Your task to perform on an android device: star an email in the gmail app Image 0: 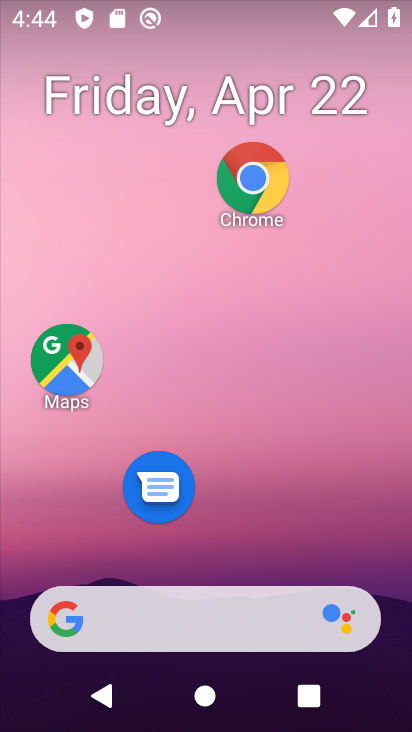
Step 0: drag from (206, 724) to (209, 126)
Your task to perform on an android device: star an email in the gmail app Image 1: 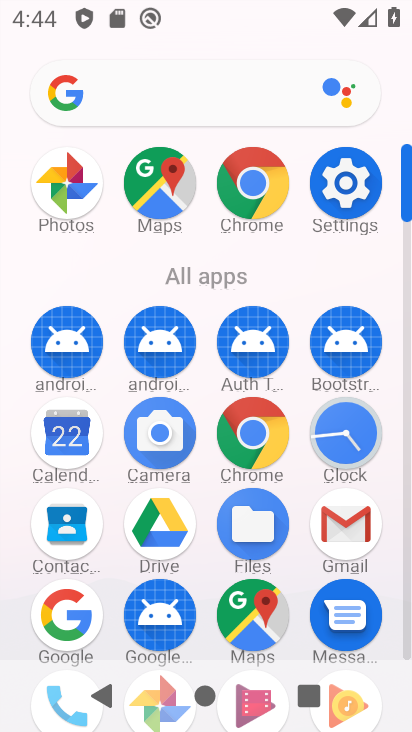
Step 1: click (349, 519)
Your task to perform on an android device: star an email in the gmail app Image 2: 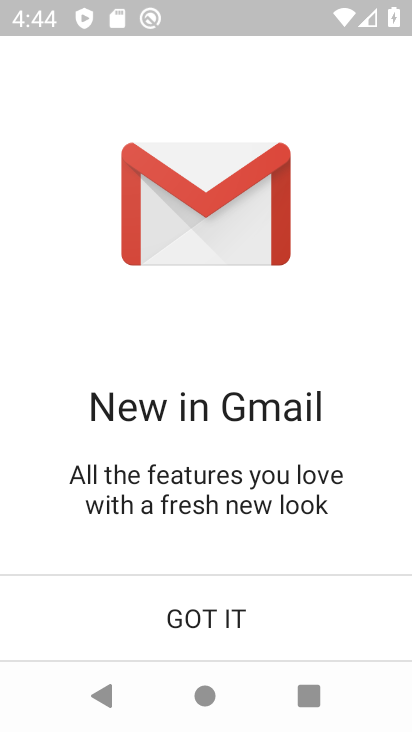
Step 2: click (203, 605)
Your task to perform on an android device: star an email in the gmail app Image 3: 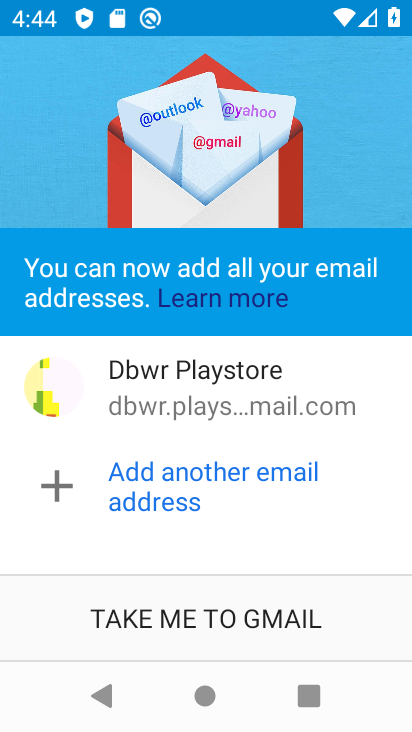
Step 3: click (198, 617)
Your task to perform on an android device: star an email in the gmail app Image 4: 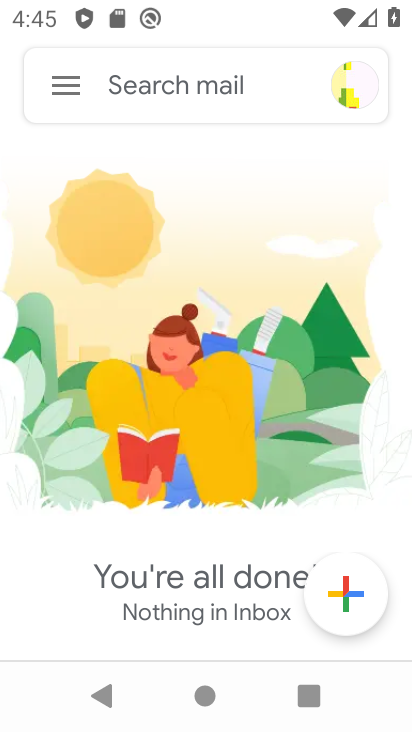
Step 4: task complete